Your task to perform on an android device: add a contact in the contacts app Image 0: 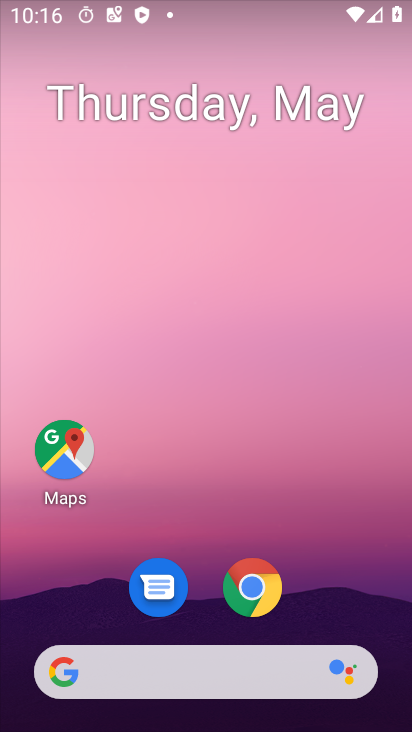
Step 0: drag from (384, 629) to (410, 24)
Your task to perform on an android device: add a contact in the contacts app Image 1: 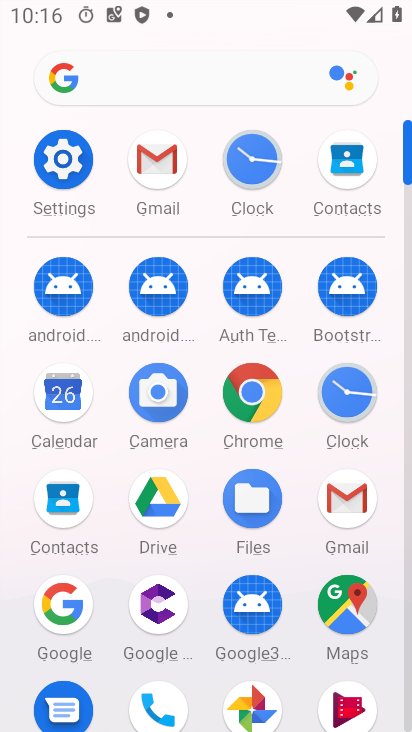
Step 1: click (353, 158)
Your task to perform on an android device: add a contact in the contacts app Image 2: 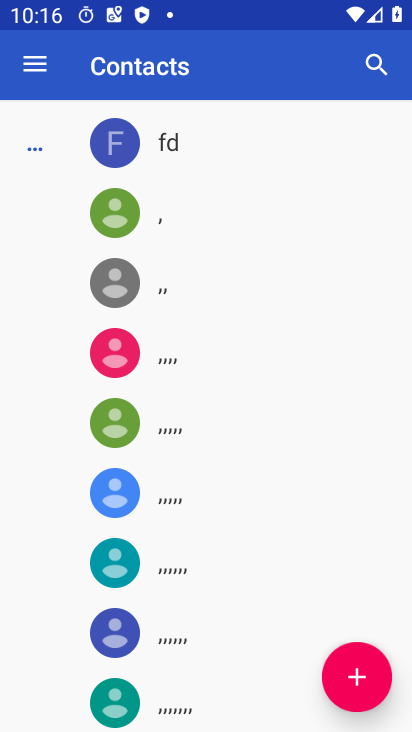
Step 2: click (354, 686)
Your task to perform on an android device: add a contact in the contacts app Image 3: 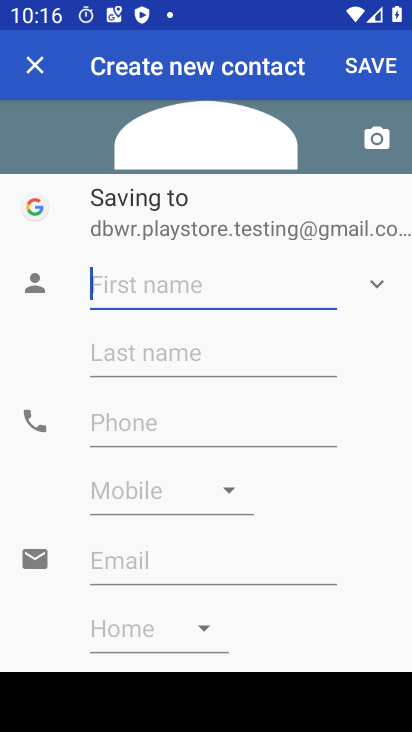
Step 3: click (121, 282)
Your task to perform on an android device: add a contact in the contacts app Image 4: 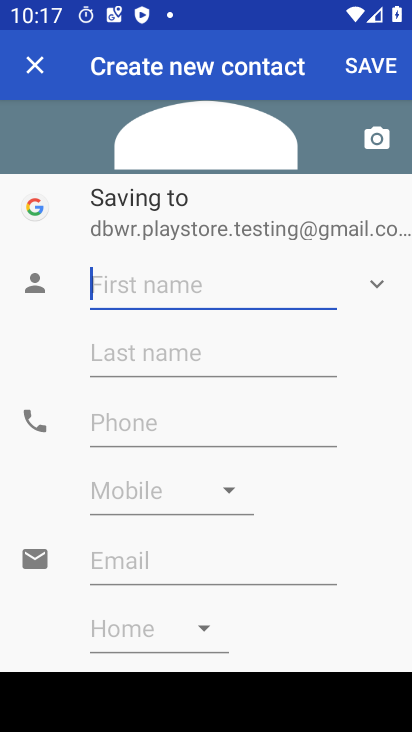
Step 4: type "nani"
Your task to perform on an android device: add a contact in the contacts app Image 5: 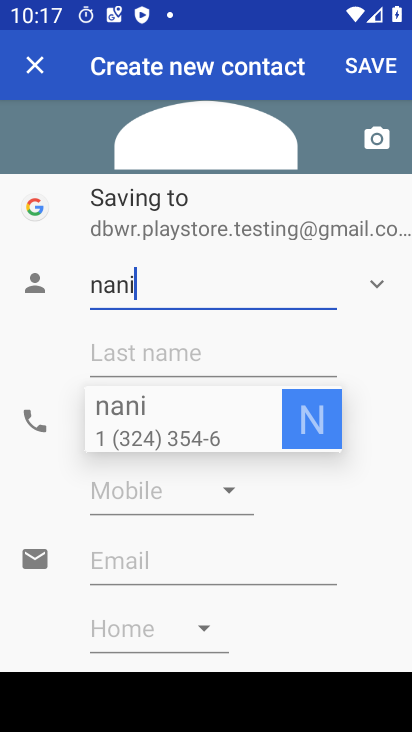
Step 5: click (379, 425)
Your task to perform on an android device: add a contact in the contacts app Image 6: 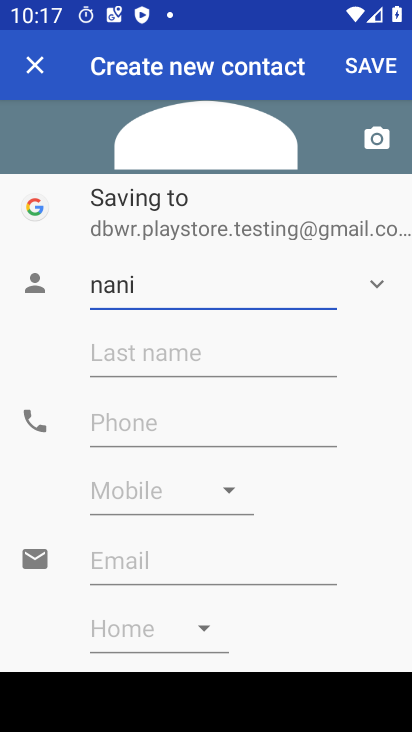
Step 6: click (99, 415)
Your task to perform on an android device: add a contact in the contacts app Image 7: 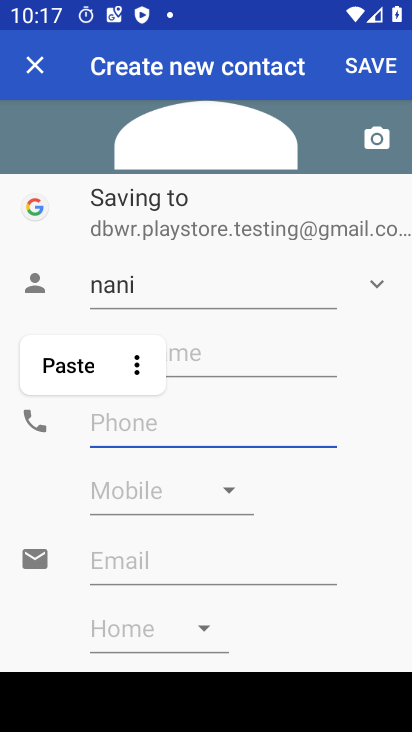
Step 7: type "7876554444"
Your task to perform on an android device: add a contact in the contacts app Image 8: 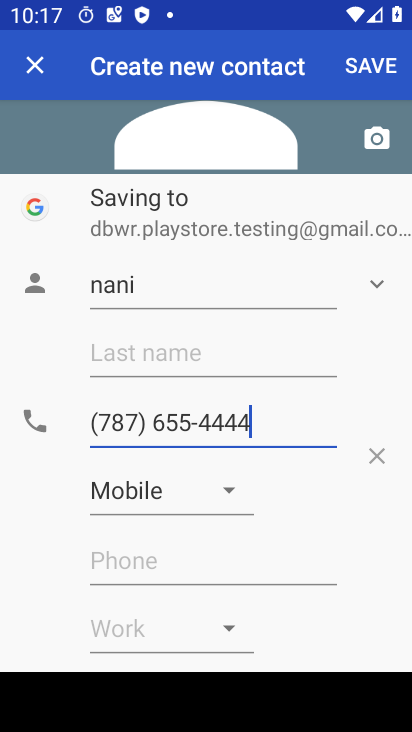
Step 8: click (387, 77)
Your task to perform on an android device: add a contact in the contacts app Image 9: 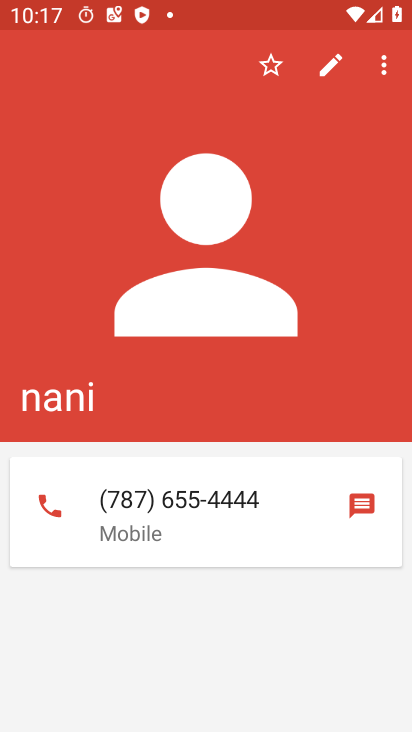
Step 9: task complete